Your task to perform on an android device: Open Reddit.com Image 0: 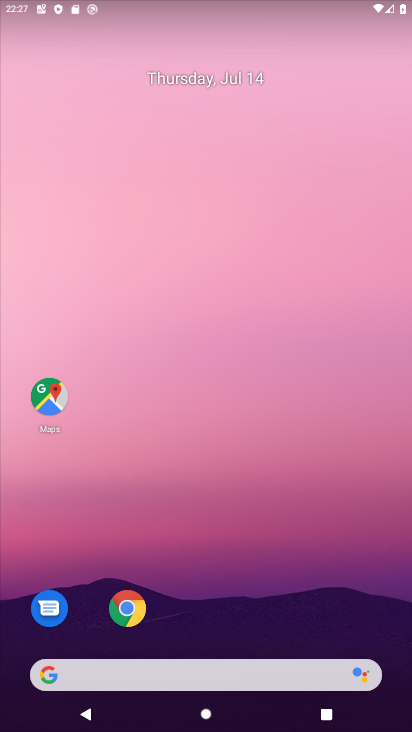
Step 0: click (116, 609)
Your task to perform on an android device: Open Reddit.com Image 1: 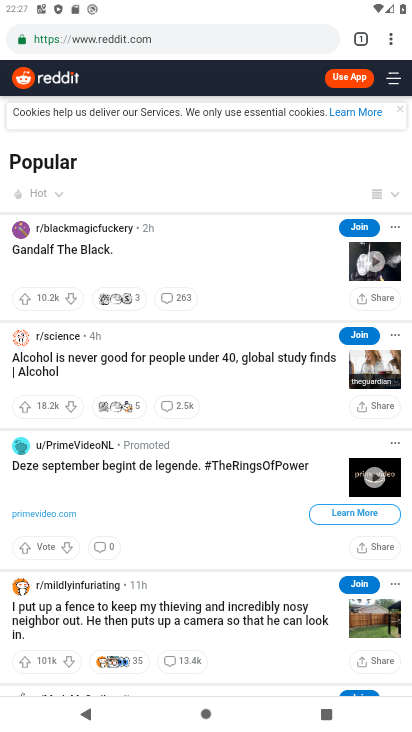
Step 1: task complete